Your task to perform on an android device: toggle javascript in the chrome app Image 0: 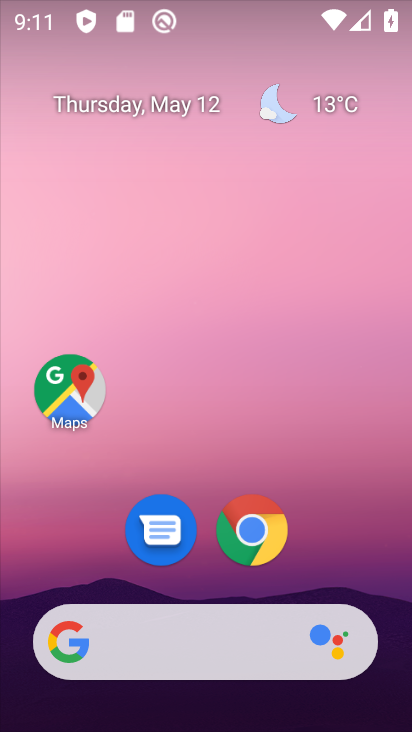
Step 0: click (281, 541)
Your task to perform on an android device: toggle javascript in the chrome app Image 1: 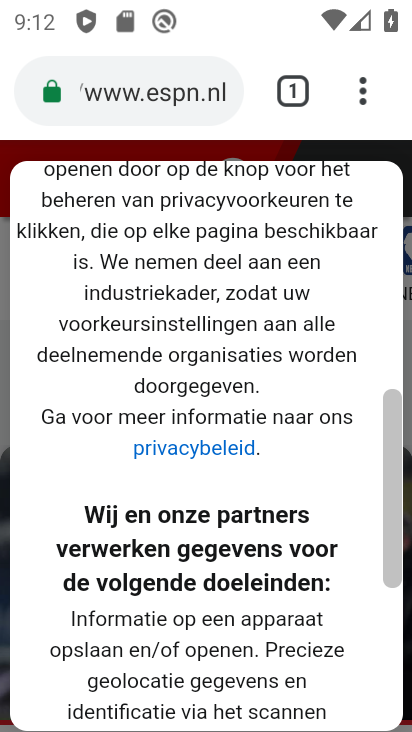
Step 1: click (368, 87)
Your task to perform on an android device: toggle javascript in the chrome app Image 2: 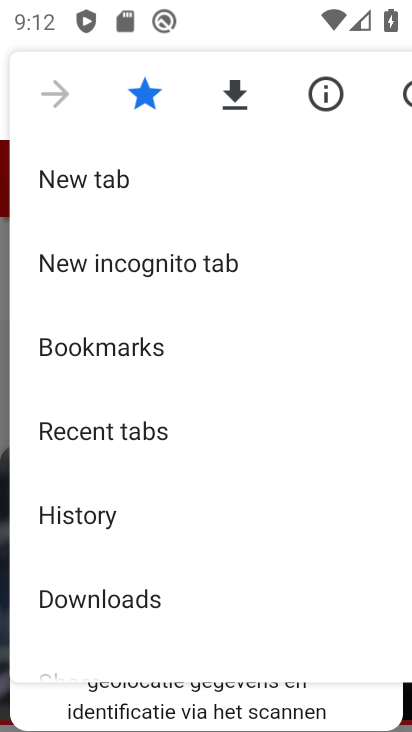
Step 2: drag from (221, 585) to (259, 181)
Your task to perform on an android device: toggle javascript in the chrome app Image 3: 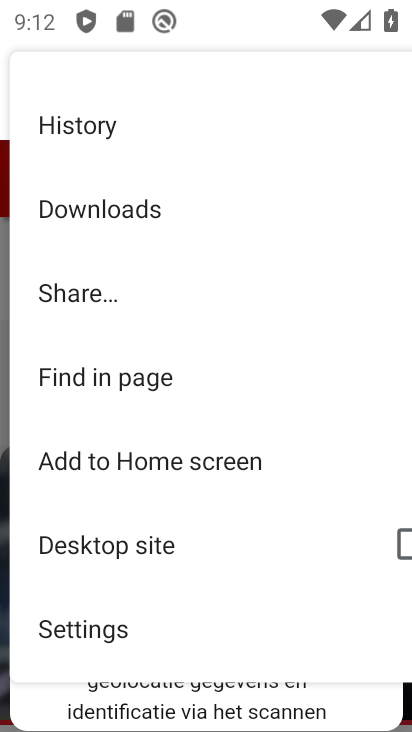
Step 3: click (78, 608)
Your task to perform on an android device: toggle javascript in the chrome app Image 4: 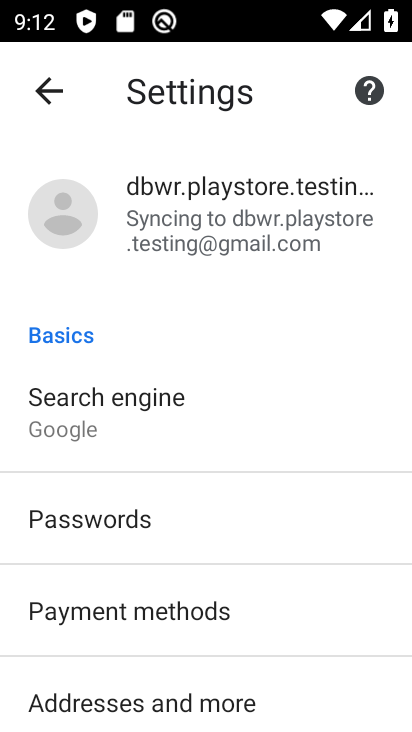
Step 4: drag from (188, 644) to (292, 288)
Your task to perform on an android device: toggle javascript in the chrome app Image 5: 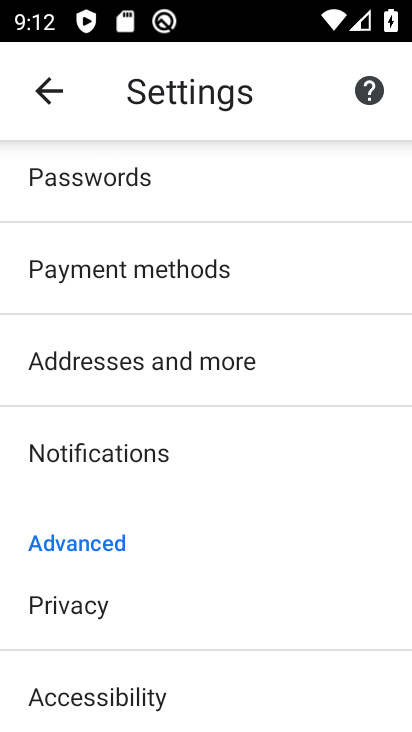
Step 5: drag from (195, 586) to (232, 203)
Your task to perform on an android device: toggle javascript in the chrome app Image 6: 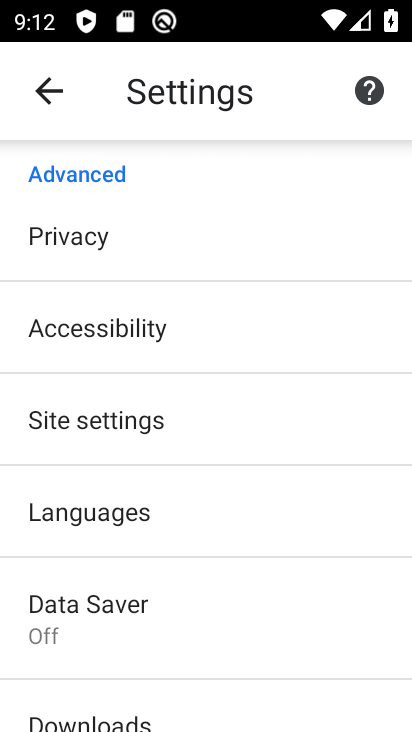
Step 6: click (226, 410)
Your task to perform on an android device: toggle javascript in the chrome app Image 7: 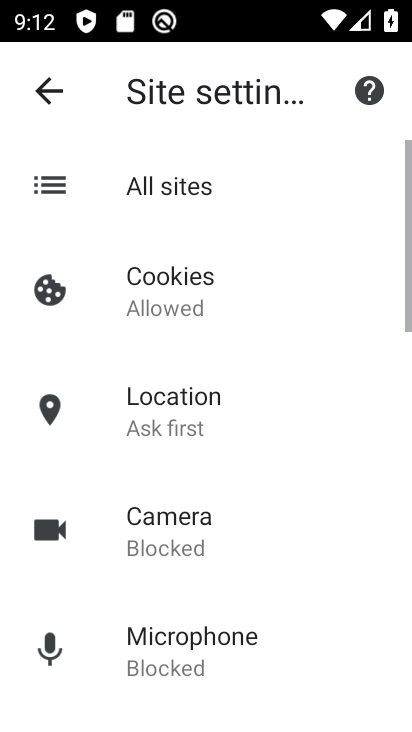
Step 7: drag from (219, 633) to (212, 467)
Your task to perform on an android device: toggle javascript in the chrome app Image 8: 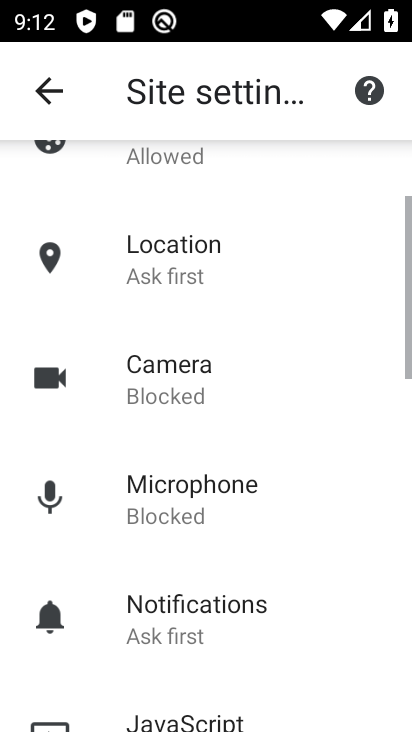
Step 8: drag from (212, 439) to (275, 247)
Your task to perform on an android device: toggle javascript in the chrome app Image 9: 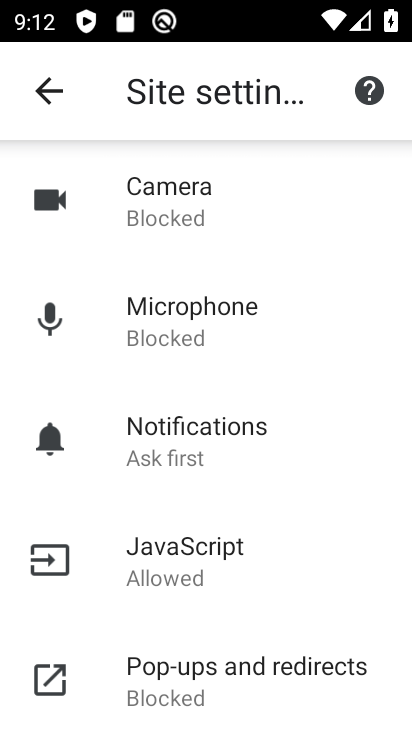
Step 9: click (231, 540)
Your task to perform on an android device: toggle javascript in the chrome app Image 10: 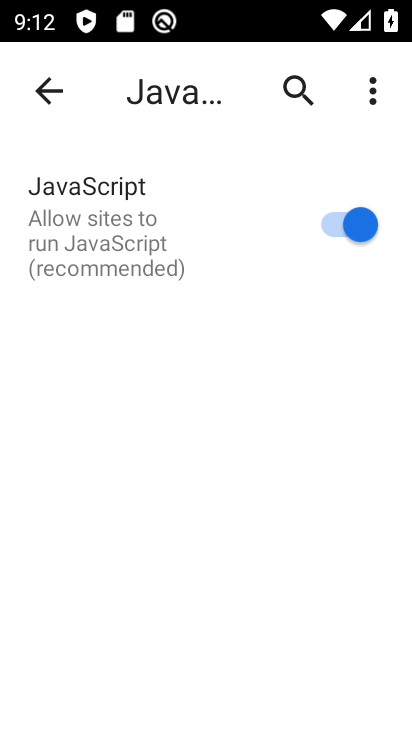
Step 10: click (365, 215)
Your task to perform on an android device: toggle javascript in the chrome app Image 11: 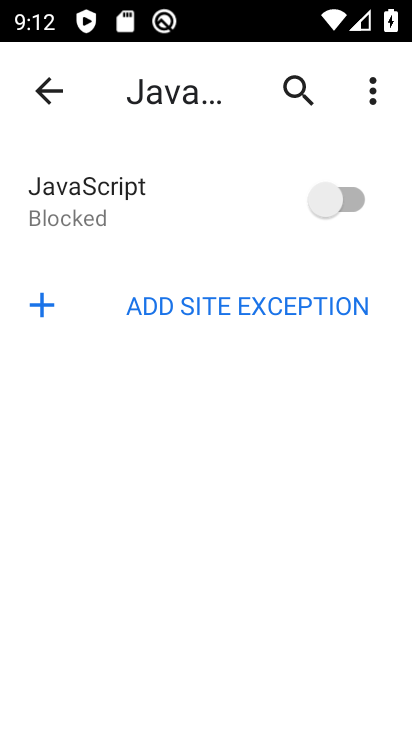
Step 11: task complete